Your task to perform on an android device: turn off translation in the chrome app Image 0: 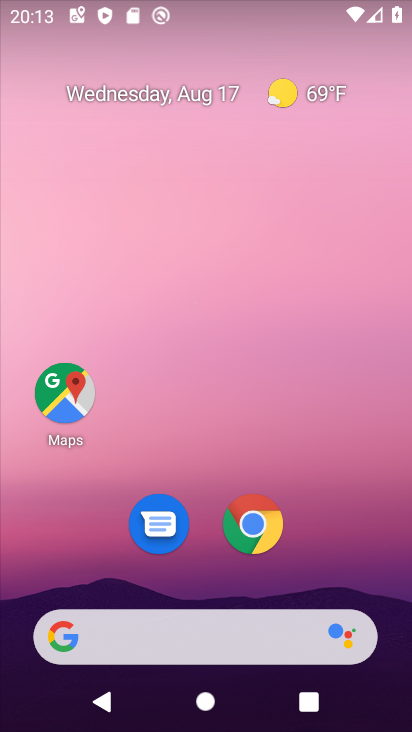
Step 0: click (255, 515)
Your task to perform on an android device: turn off translation in the chrome app Image 1: 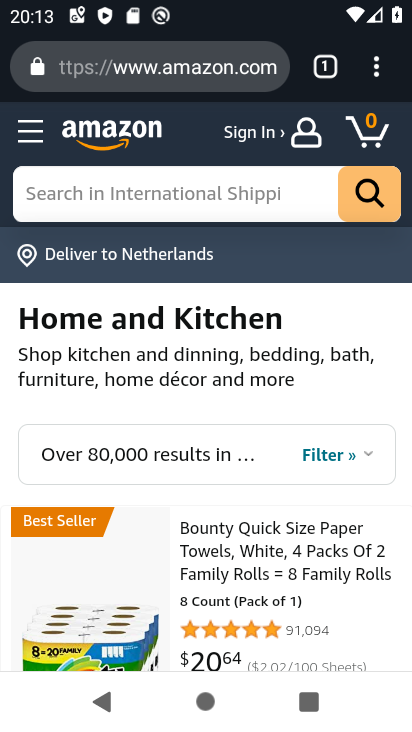
Step 1: press back button
Your task to perform on an android device: turn off translation in the chrome app Image 2: 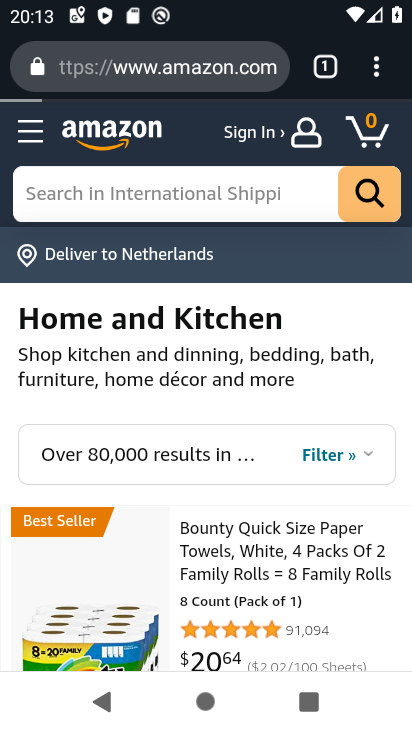
Step 2: press back button
Your task to perform on an android device: turn off translation in the chrome app Image 3: 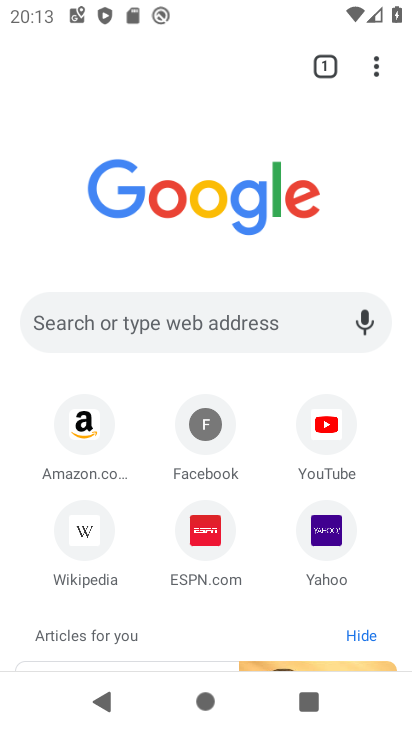
Step 3: click (376, 70)
Your task to perform on an android device: turn off translation in the chrome app Image 4: 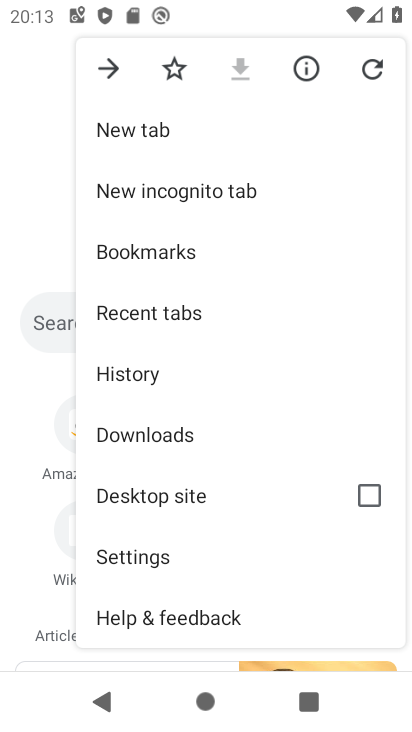
Step 4: click (139, 551)
Your task to perform on an android device: turn off translation in the chrome app Image 5: 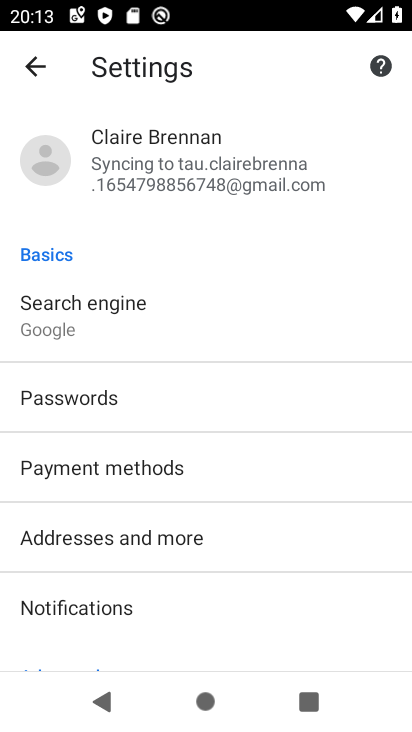
Step 5: drag from (264, 477) to (307, 6)
Your task to perform on an android device: turn off translation in the chrome app Image 6: 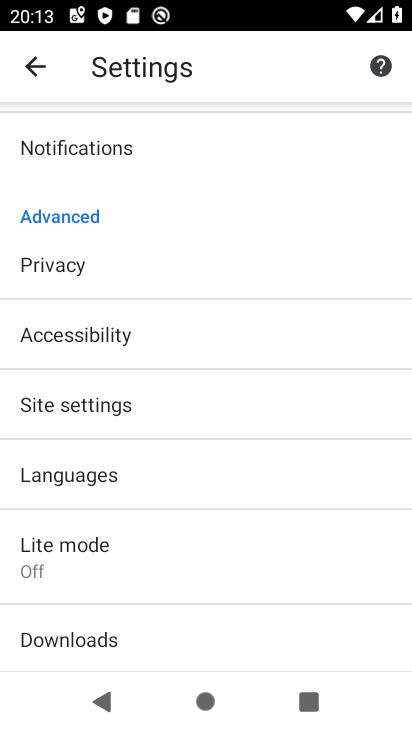
Step 6: click (122, 464)
Your task to perform on an android device: turn off translation in the chrome app Image 7: 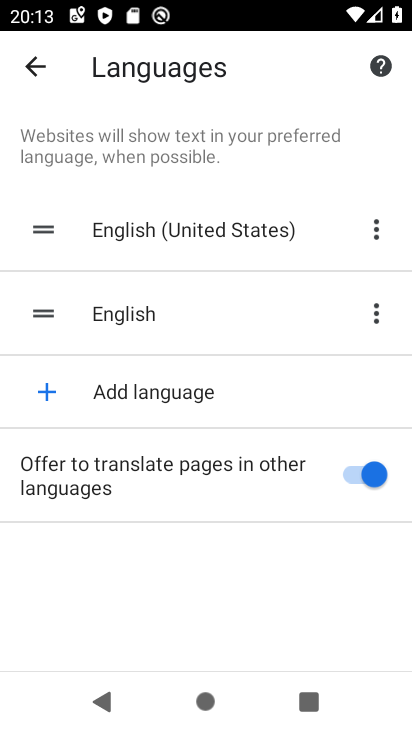
Step 7: click (364, 468)
Your task to perform on an android device: turn off translation in the chrome app Image 8: 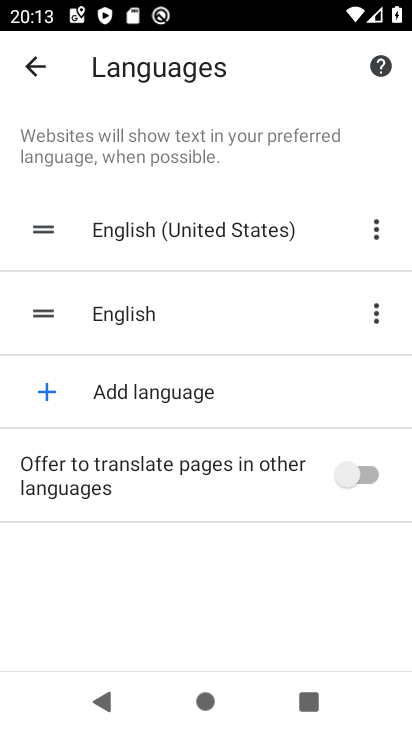
Step 8: task complete